Your task to perform on an android device: Look up the best rated headphones on Walmart. Image 0: 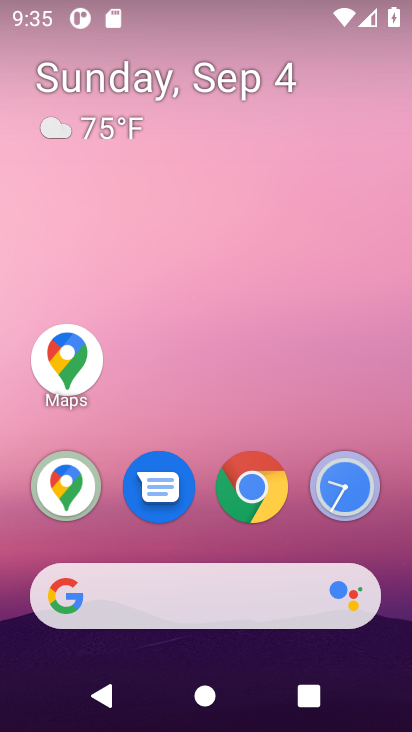
Step 0: click (268, 482)
Your task to perform on an android device: Look up the best rated headphones on Walmart. Image 1: 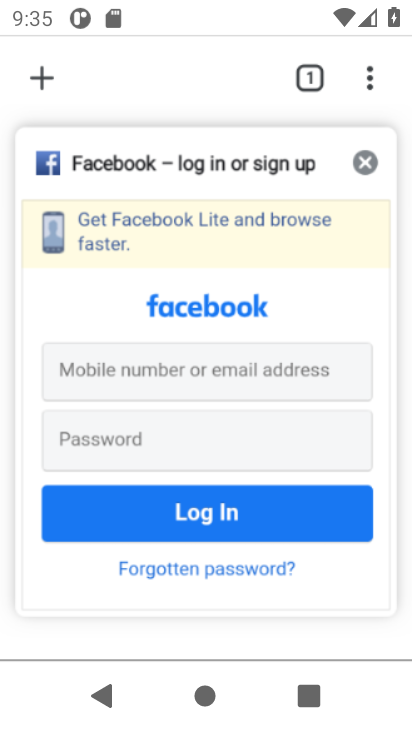
Step 1: task complete